Your task to perform on an android device: open chrome and create a bookmark for the current page Image 0: 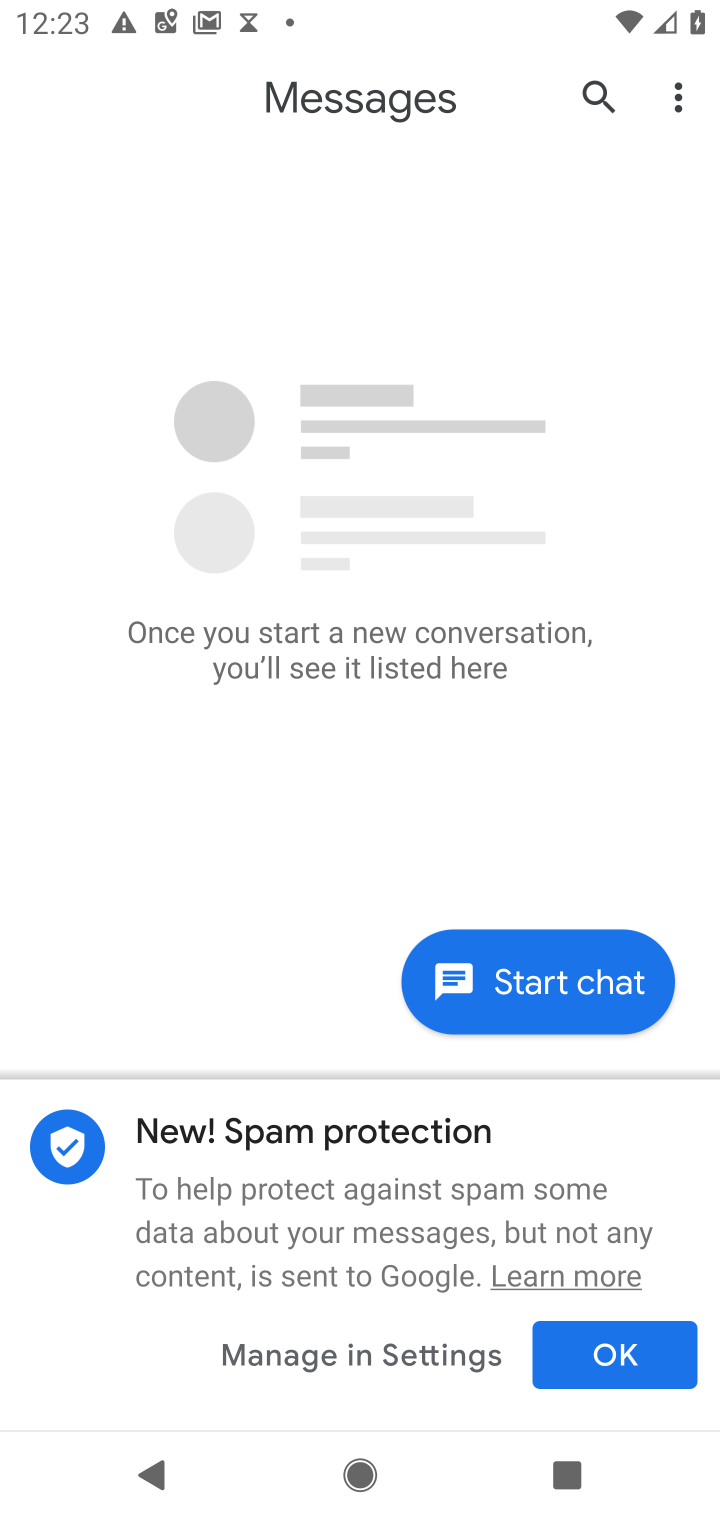
Step 0: press home button
Your task to perform on an android device: open chrome and create a bookmark for the current page Image 1: 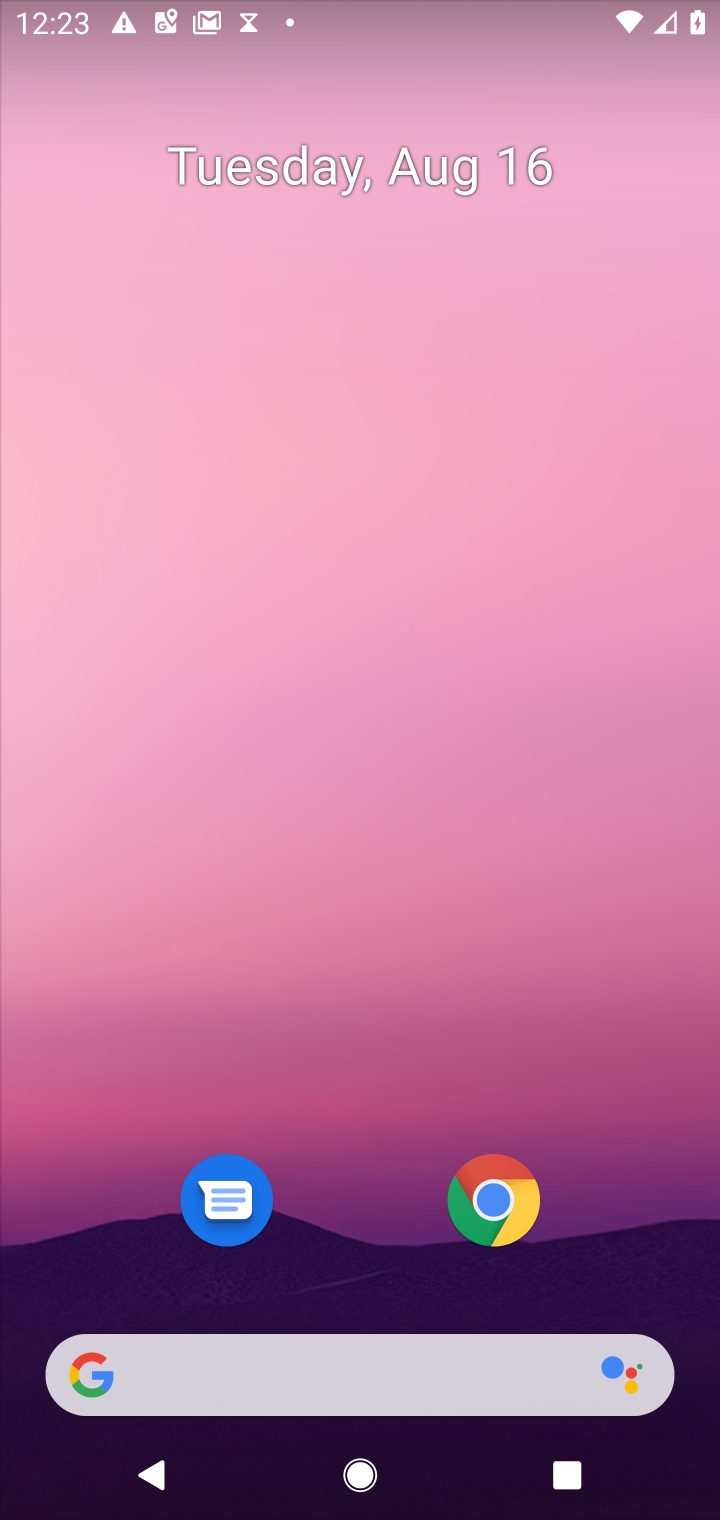
Step 1: click (464, 1201)
Your task to perform on an android device: open chrome and create a bookmark for the current page Image 2: 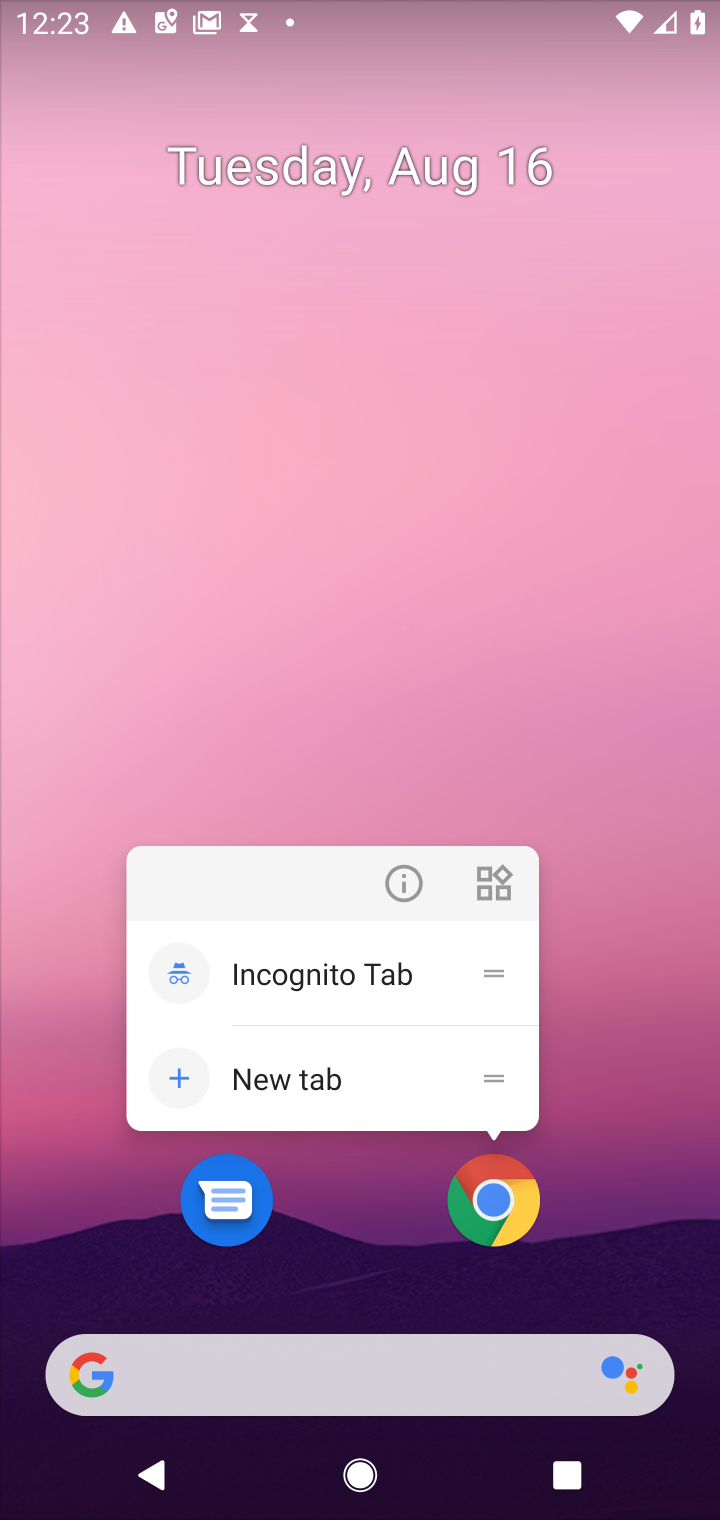
Step 2: click (465, 1212)
Your task to perform on an android device: open chrome and create a bookmark for the current page Image 3: 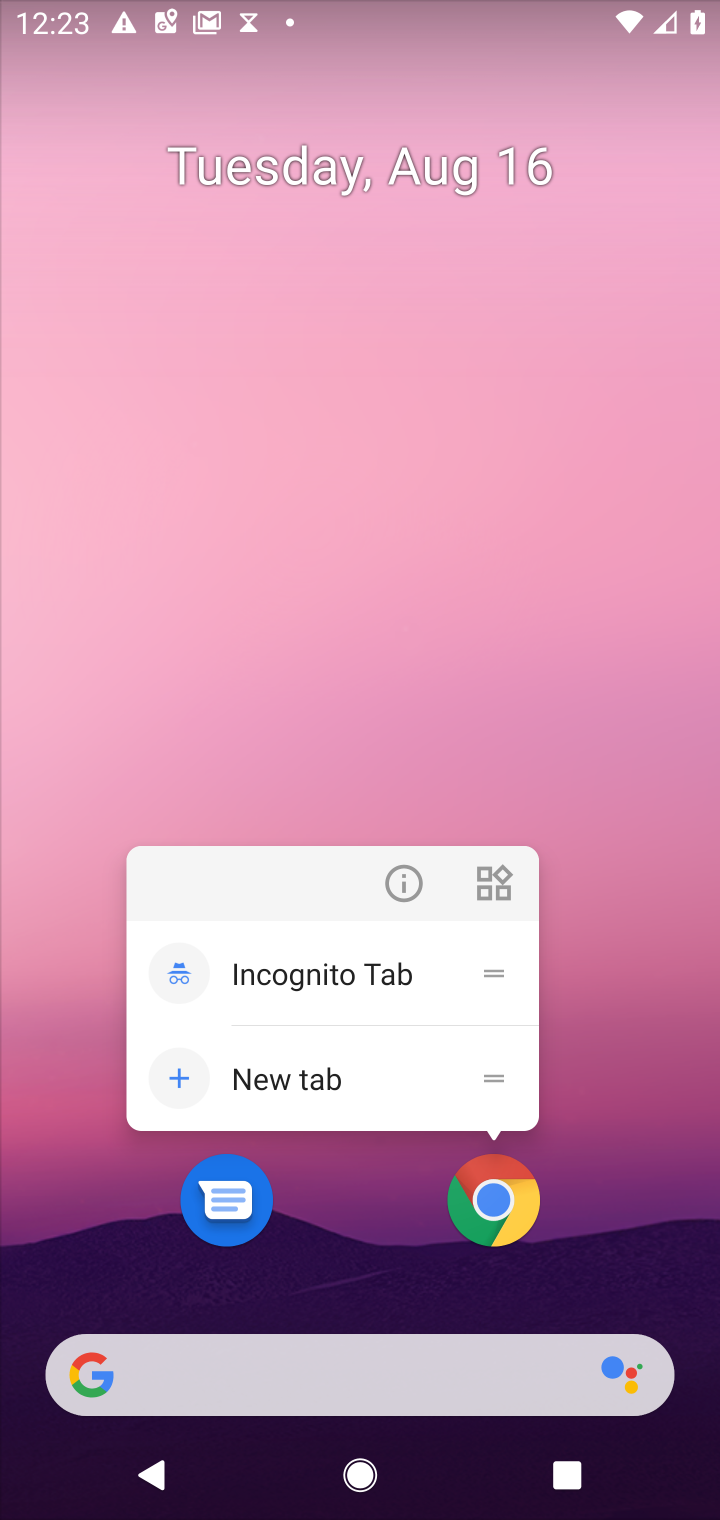
Step 3: click (529, 1205)
Your task to perform on an android device: open chrome and create a bookmark for the current page Image 4: 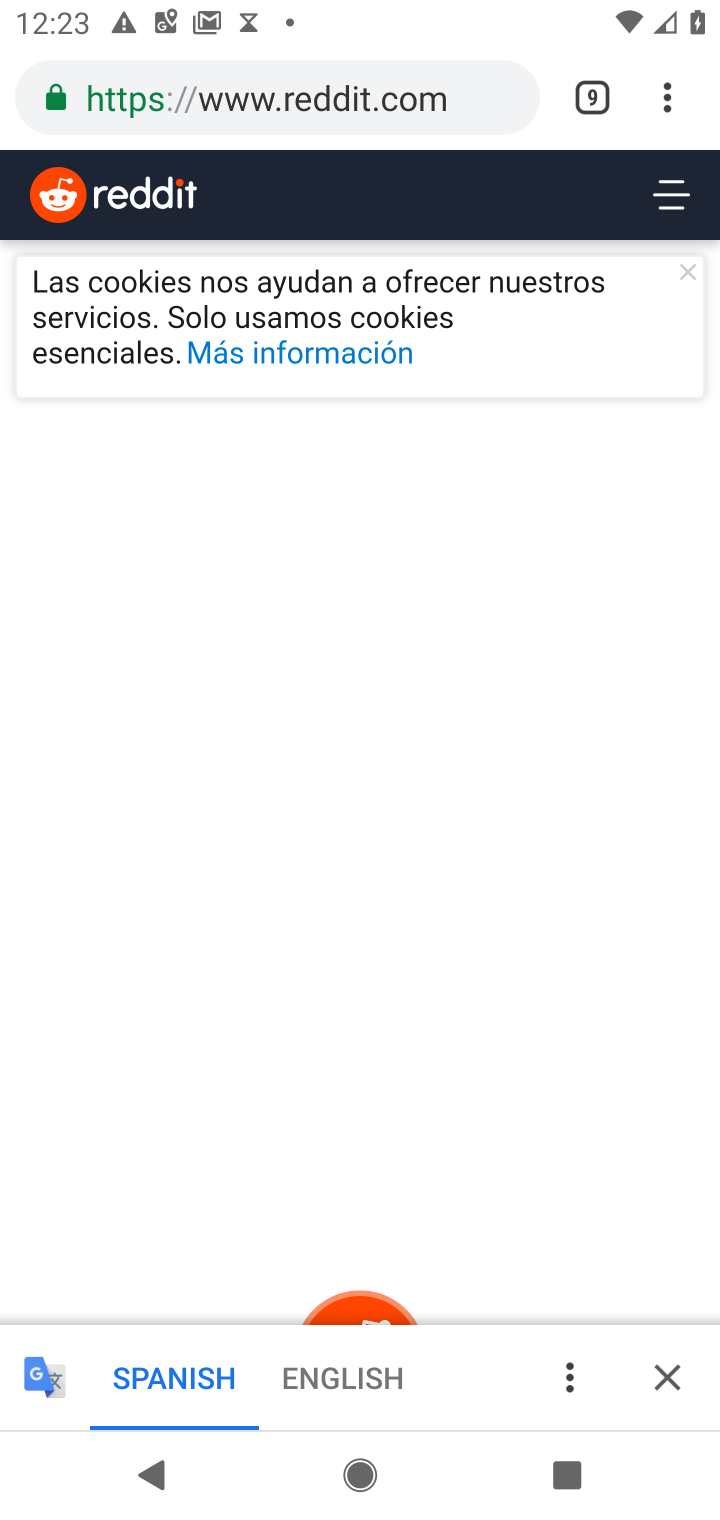
Step 4: click (662, 85)
Your task to perform on an android device: open chrome and create a bookmark for the current page Image 5: 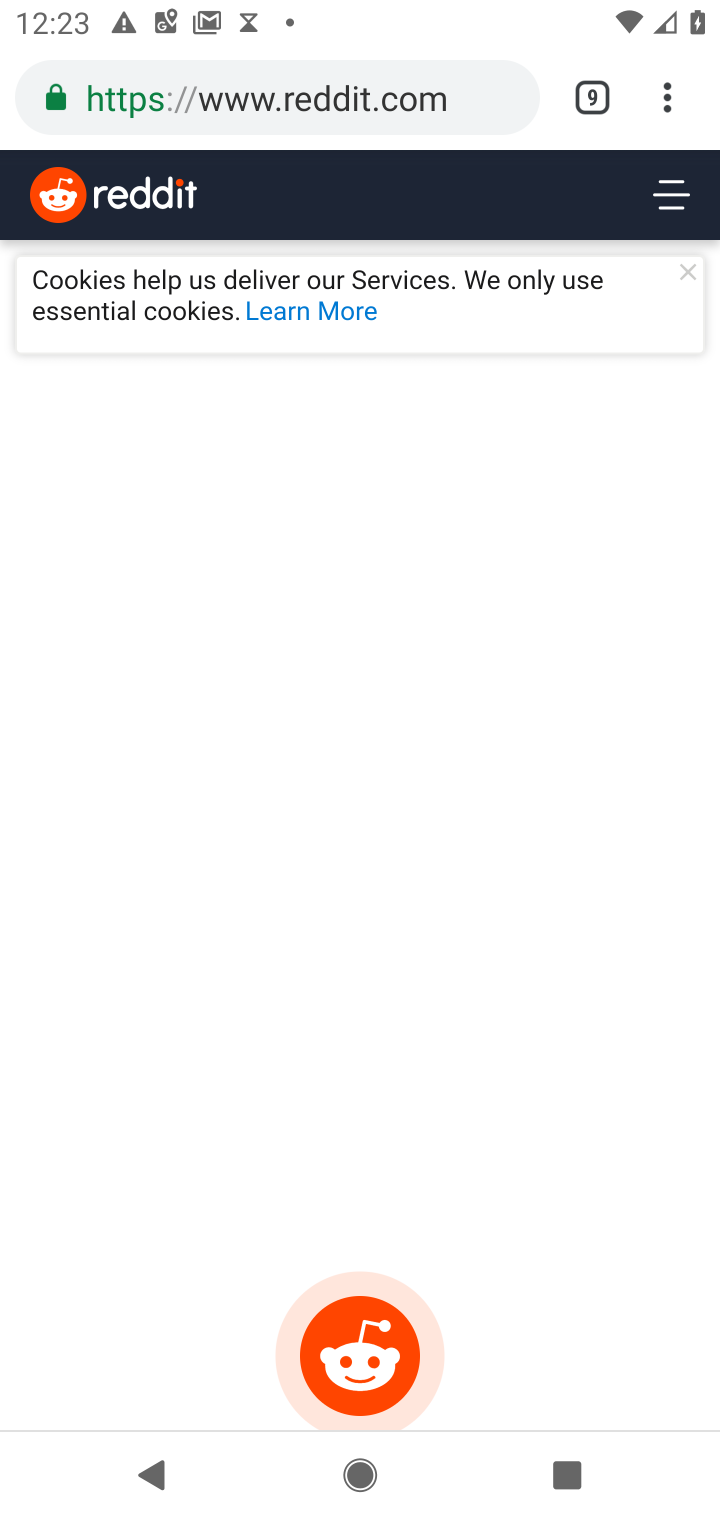
Step 5: click (590, 82)
Your task to perform on an android device: open chrome and create a bookmark for the current page Image 6: 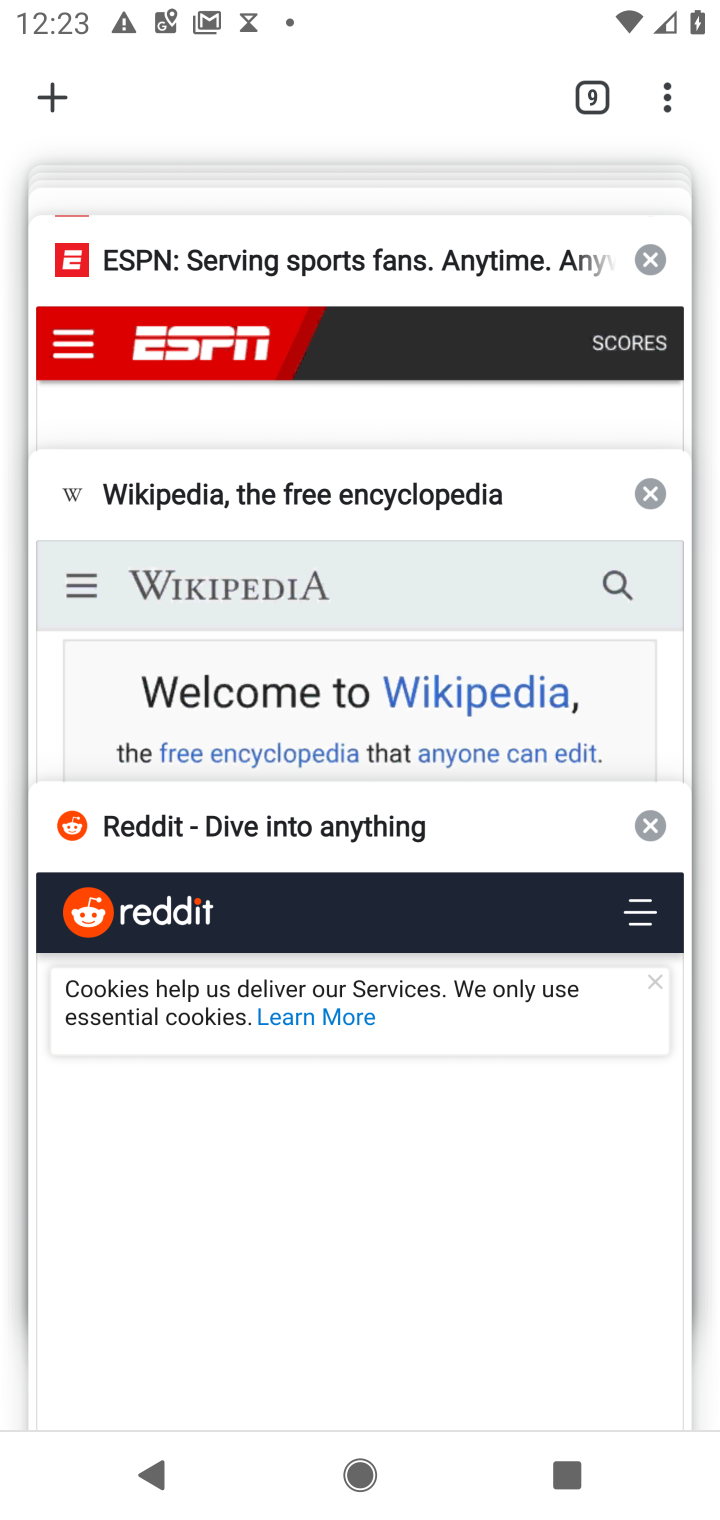
Step 6: click (49, 98)
Your task to perform on an android device: open chrome and create a bookmark for the current page Image 7: 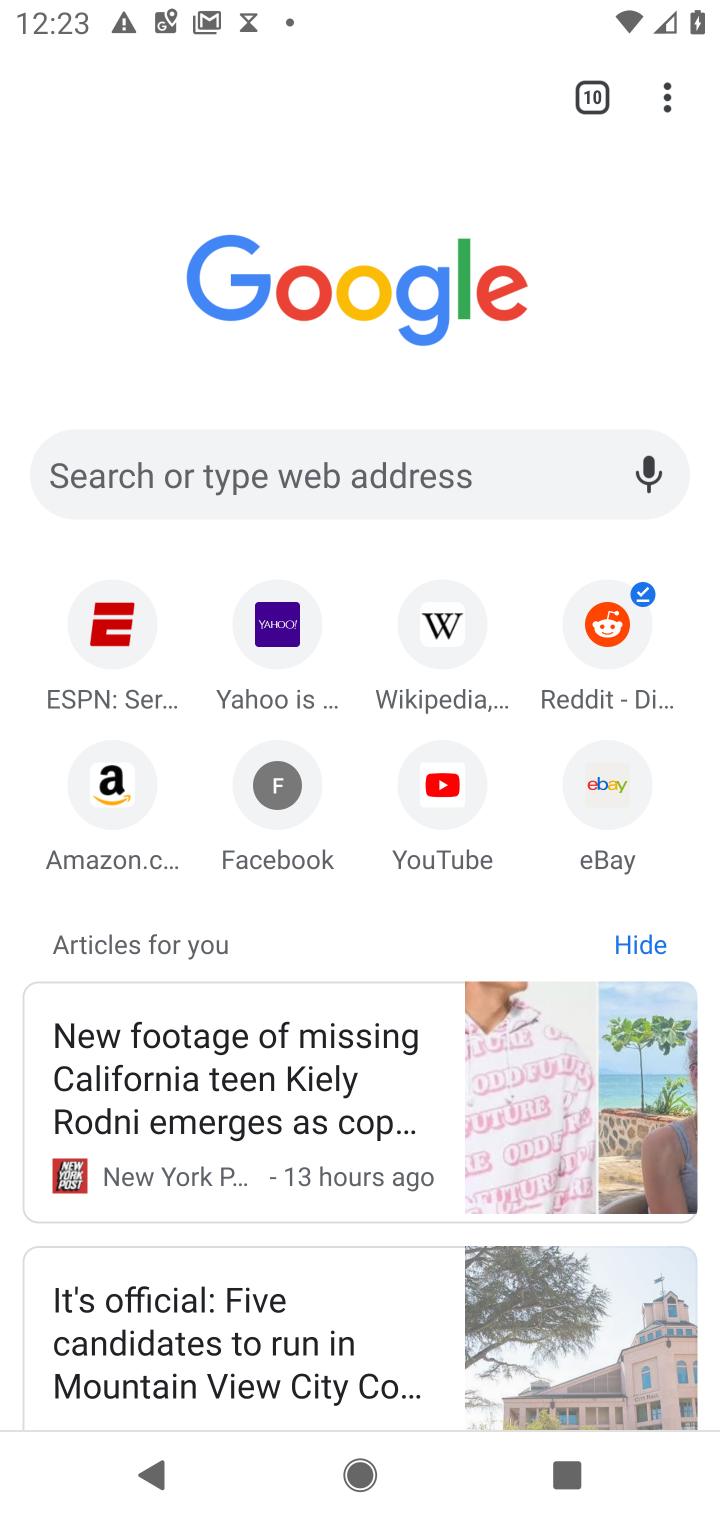
Step 7: drag from (311, 1213) to (349, 424)
Your task to perform on an android device: open chrome and create a bookmark for the current page Image 8: 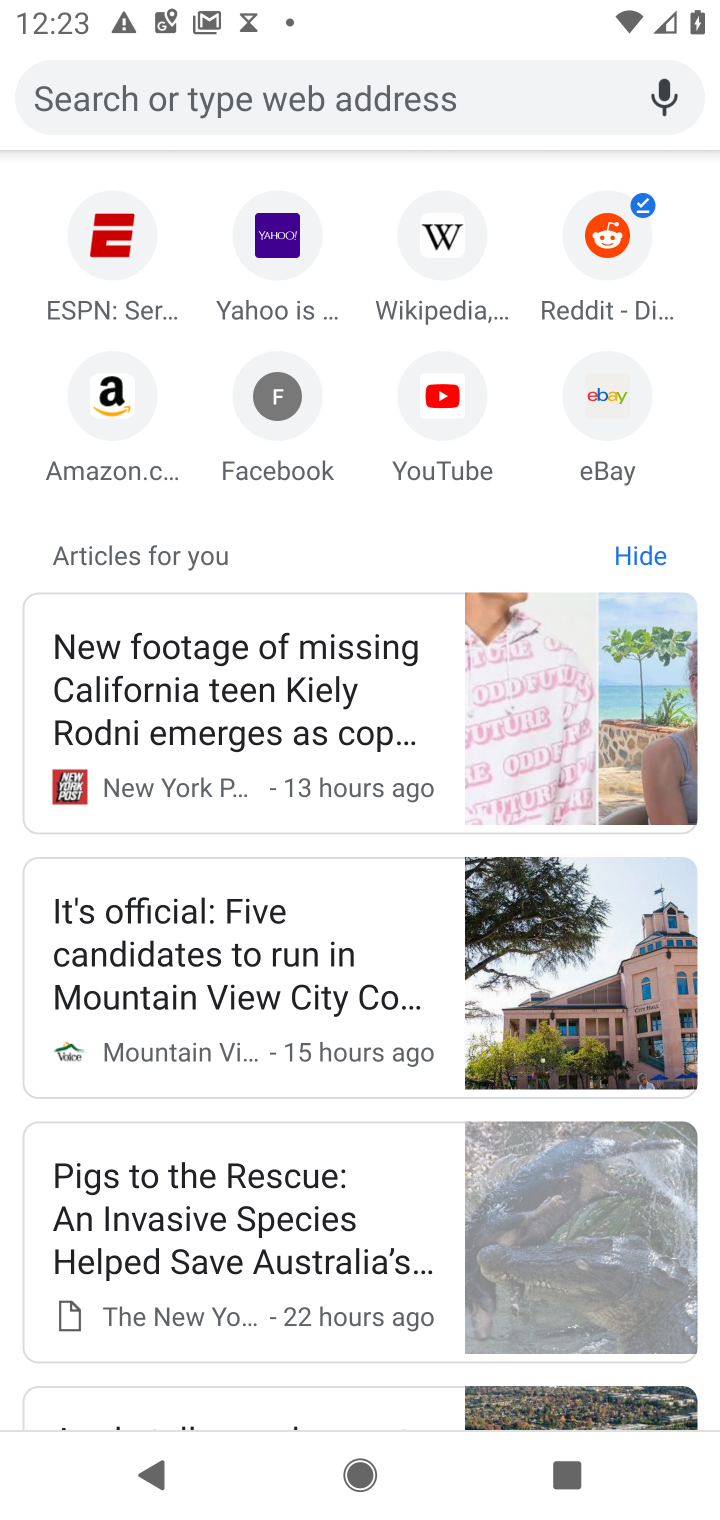
Step 8: click (283, 1233)
Your task to perform on an android device: open chrome and create a bookmark for the current page Image 9: 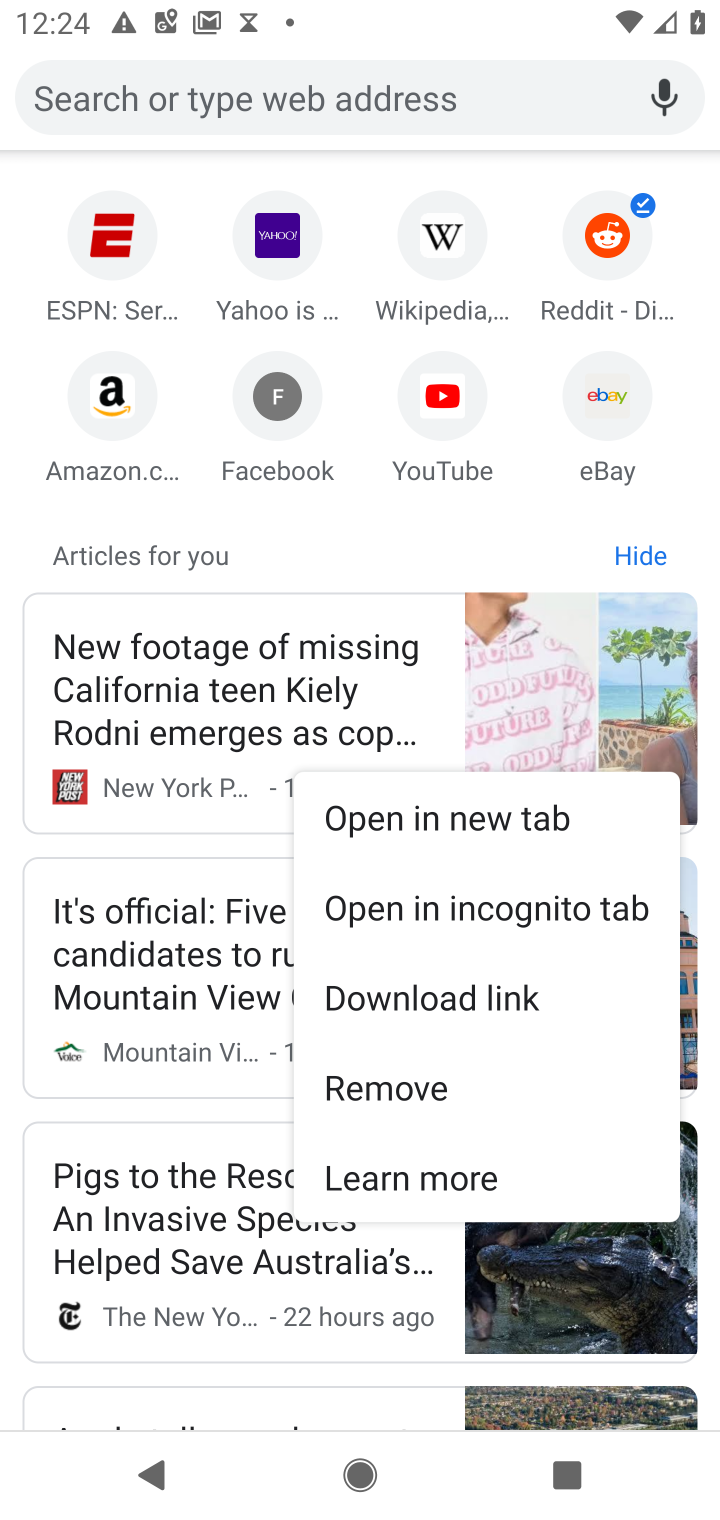
Step 9: click (278, 1238)
Your task to perform on an android device: open chrome and create a bookmark for the current page Image 10: 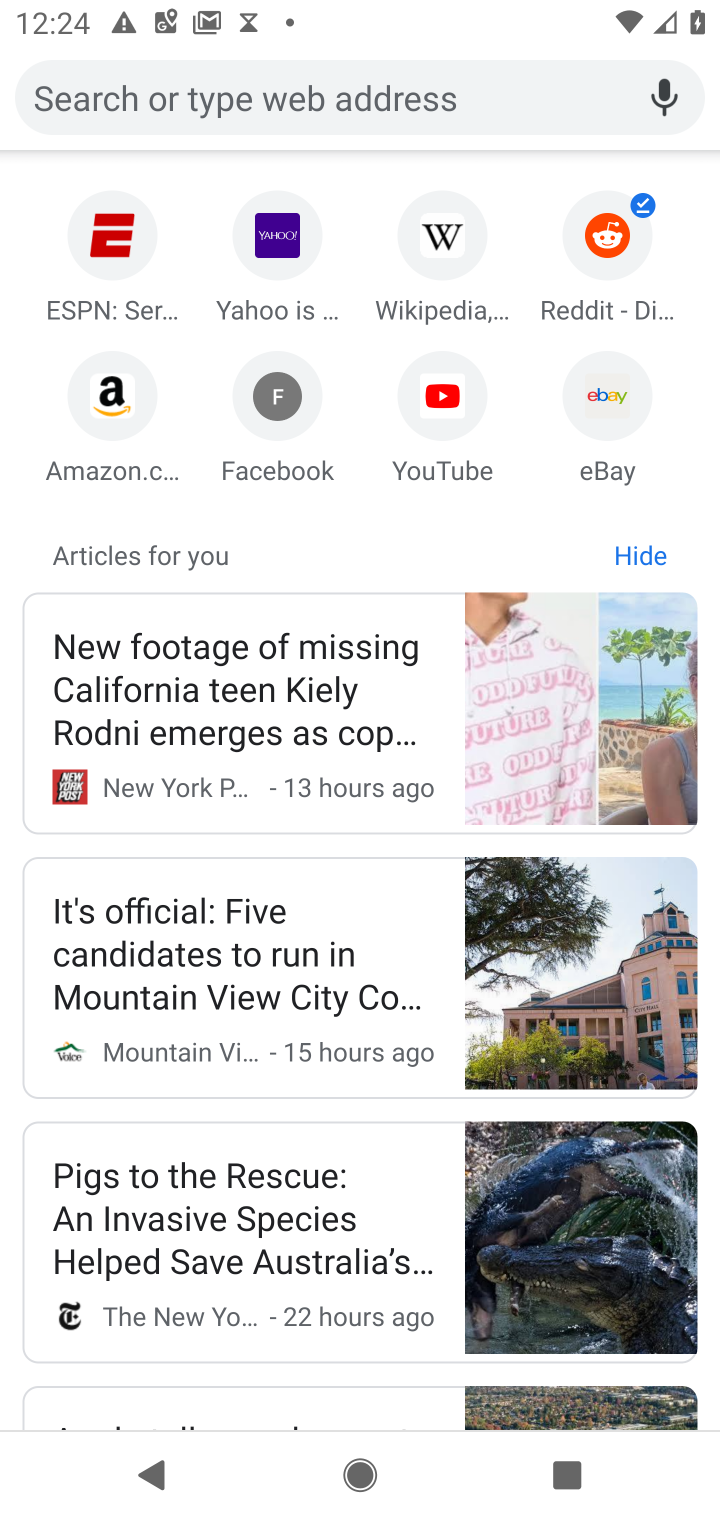
Step 10: click (278, 1231)
Your task to perform on an android device: open chrome and create a bookmark for the current page Image 11: 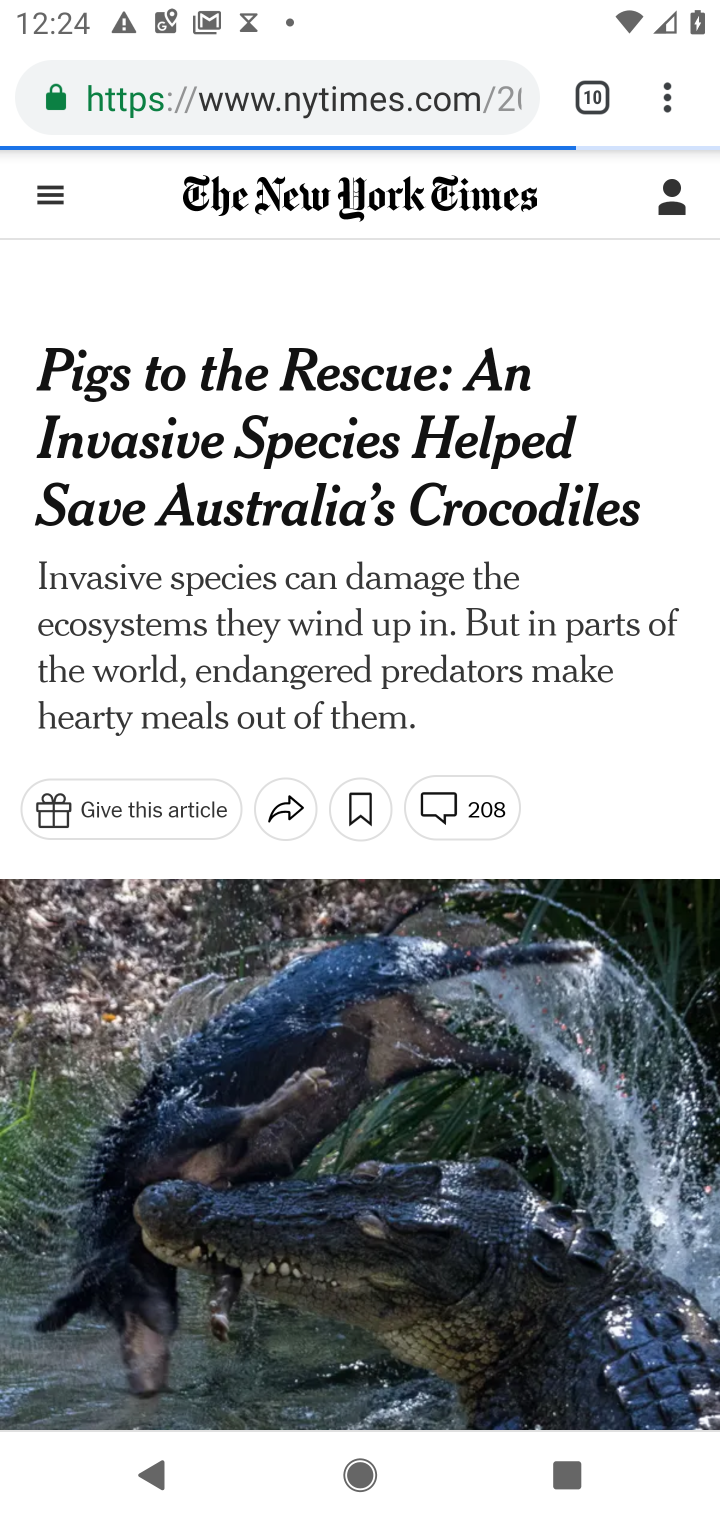
Step 11: task complete